Your task to perform on an android device: open a bookmark in the chrome app Image 0: 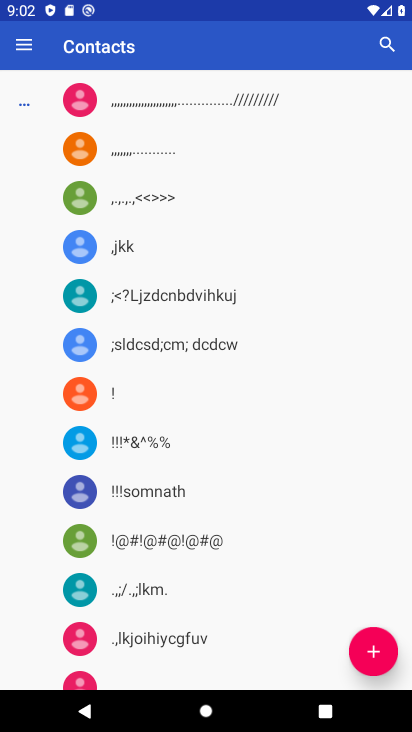
Step 0: press home button
Your task to perform on an android device: open a bookmark in the chrome app Image 1: 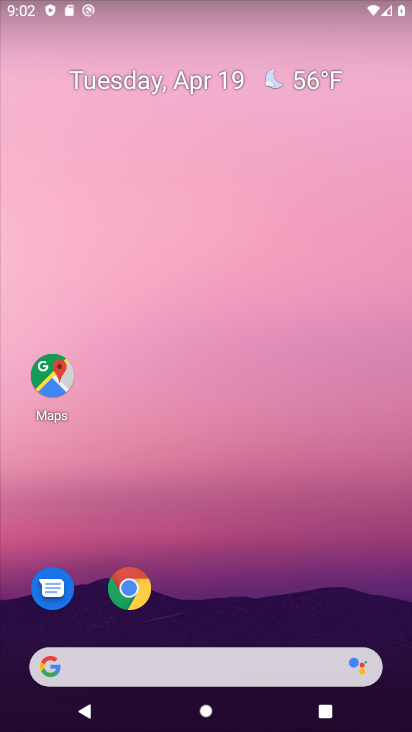
Step 1: click (131, 592)
Your task to perform on an android device: open a bookmark in the chrome app Image 2: 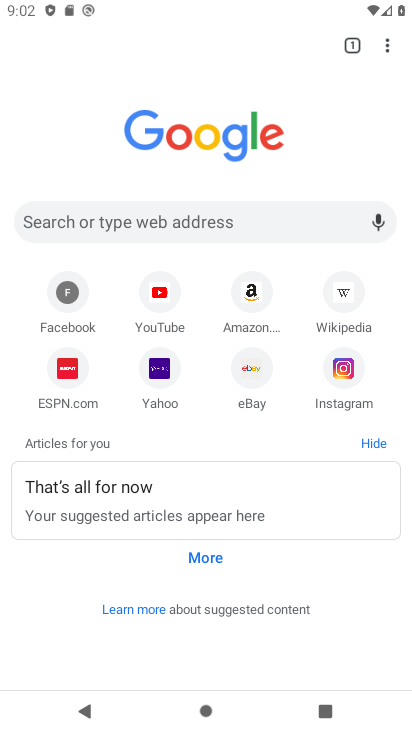
Step 2: click (389, 45)
Your task to perform on an android device: open a bookmark in the chrome app Image 3: 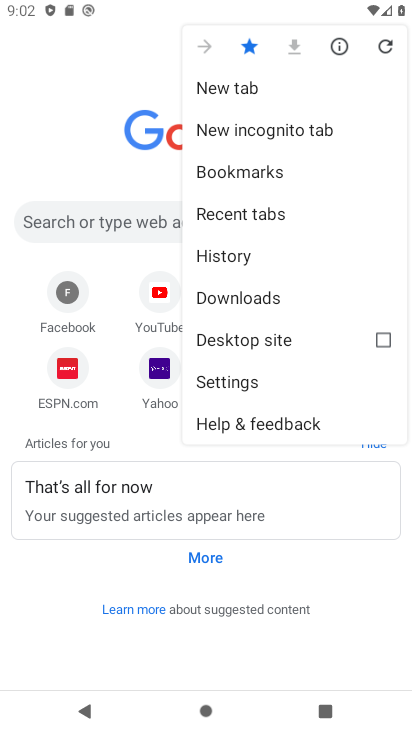
Step 3: click (275, 170)
Your task to perform on an android device: open a bookmark in the chrome app Image 4: 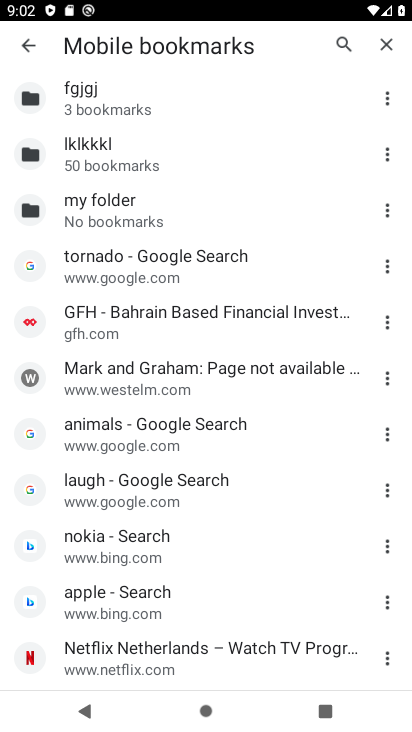
Step 4: task complete